Your task to perform on an android device: Open the stopwatch Image 0: 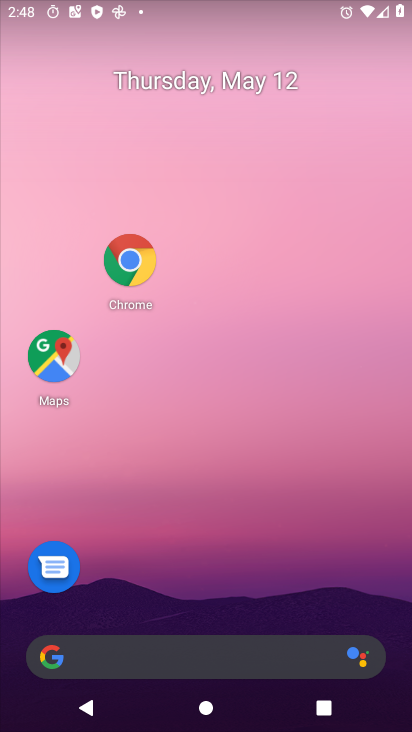
Step 0: drag from (194, 635) to (203, 242)
Your task to perform on an android device: Open the stopwatch Image 1: 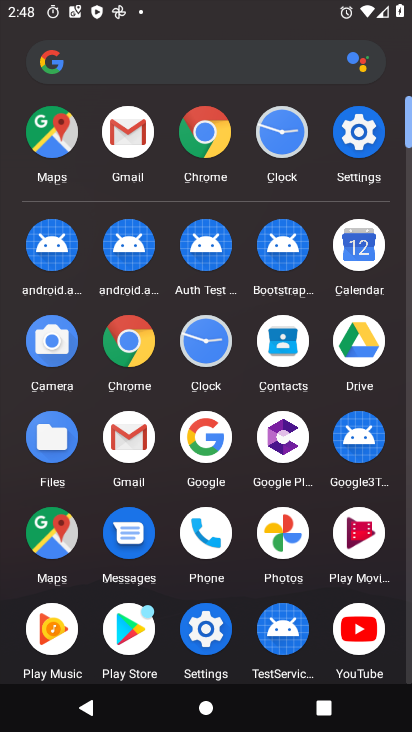
Step 1: click (279, 144)
Your task to perform on an android device: Open the stopwatch Image 2: 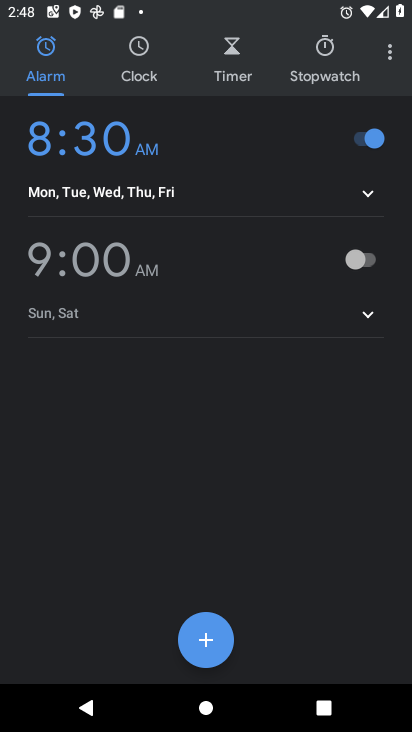
Step 2: click (334, 65)
Your task to perform on an android device: Open the stopwatch Image 3: 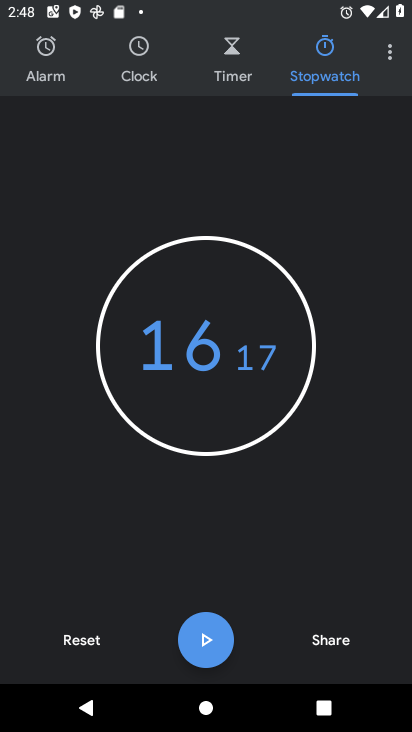
Step 3: task complete